Your task to perform on an android device: Go to display settings Image 0: 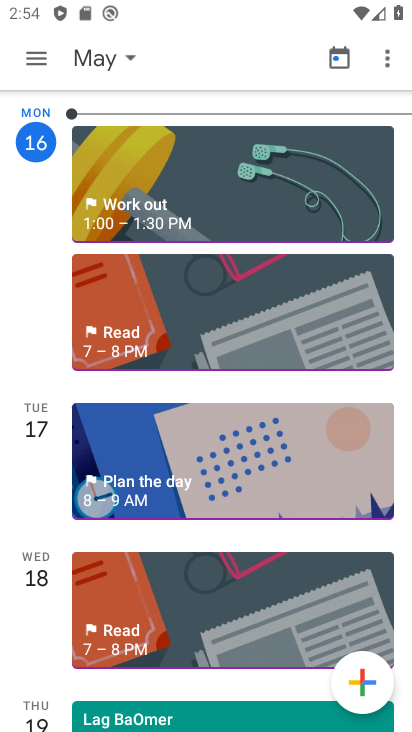
Step 0: press home button
Your task to perform on an android device: Go to display settings Image 1: 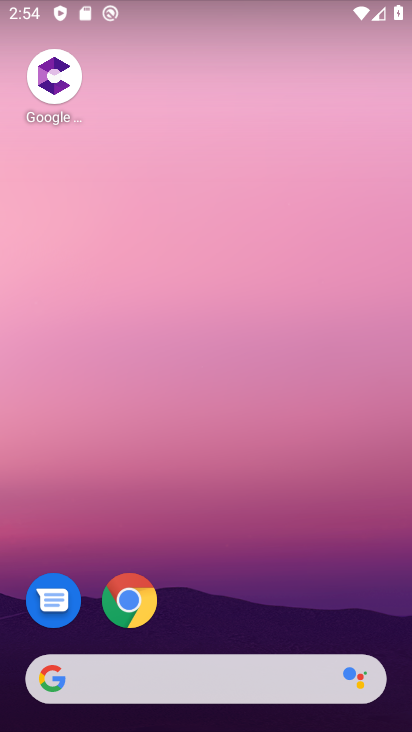
Step 1: drag from (233, 648) to (407, 543)
Your task to perform on an android device: Go to display settings Image 2: 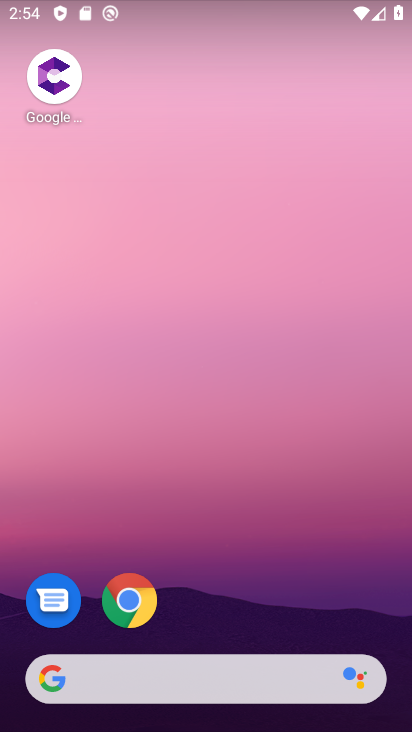
Step 2: drag from (217, 677) to (268, 3)
Your task to perform on an android device: Go to display settings Image 3: 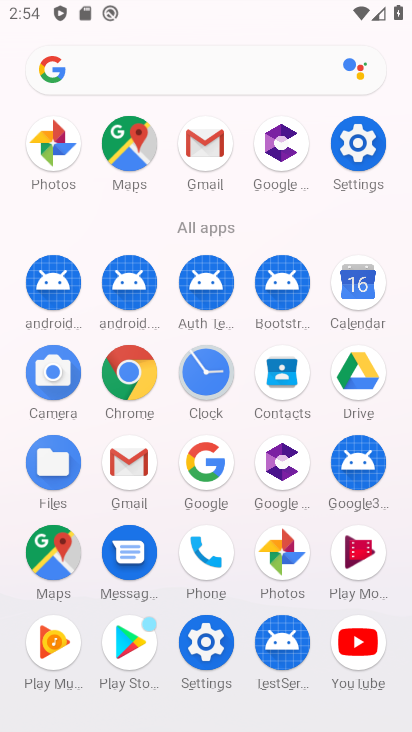
Step 3: click (365, 157)
Your task to perform on an android device: Go to display settings Image 4: 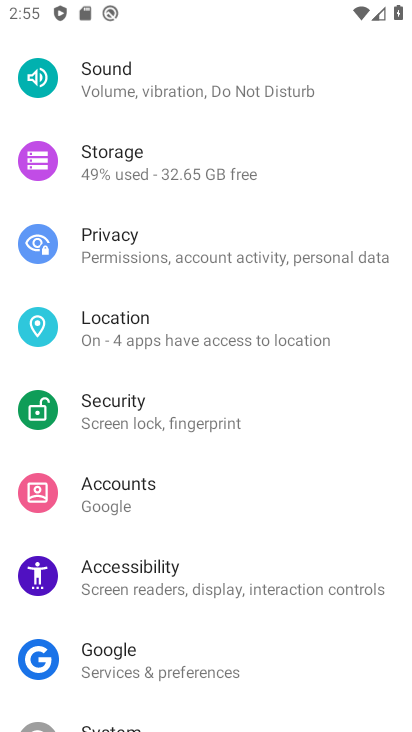
Step 4: drag from (152, 661) to (157, 710)
Your task to perform on an android device: Go to display settings Image 5: 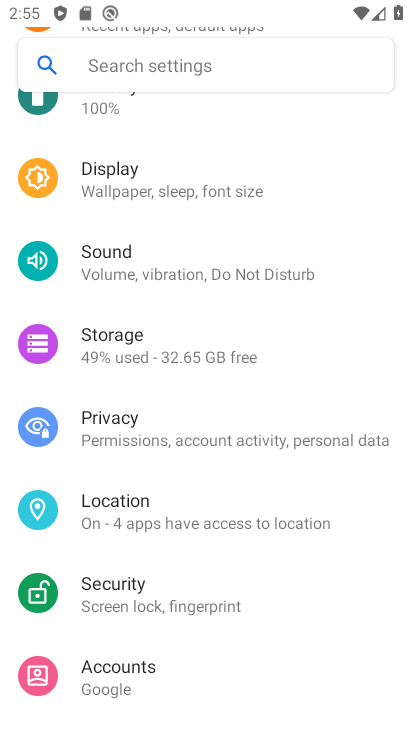
Step 5: click (172, 180)
Your task to perform on an android device: Go to display settings Image 6: 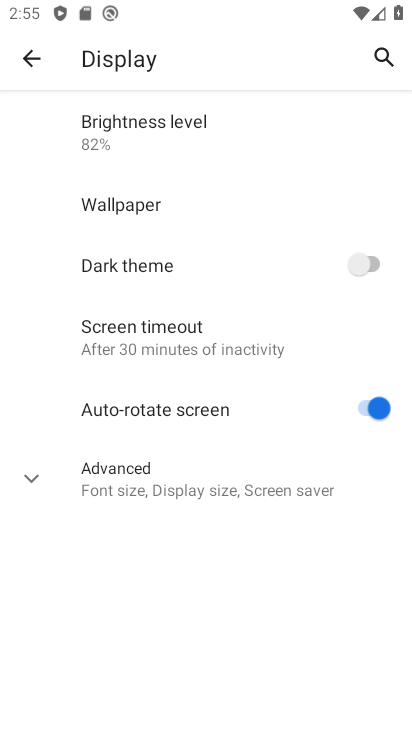
Step 6: click (205, 490)
Your task to perform on an android device: Go to display settings Image 7: 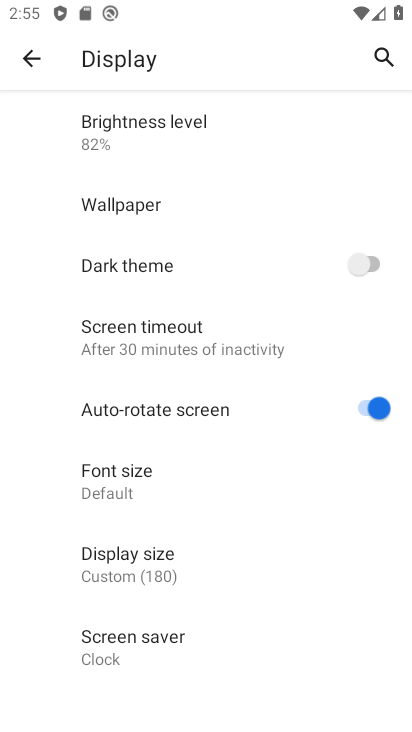
Step 7: task complete